Your task to perform on an android device: Go to wifi settings Image 0: 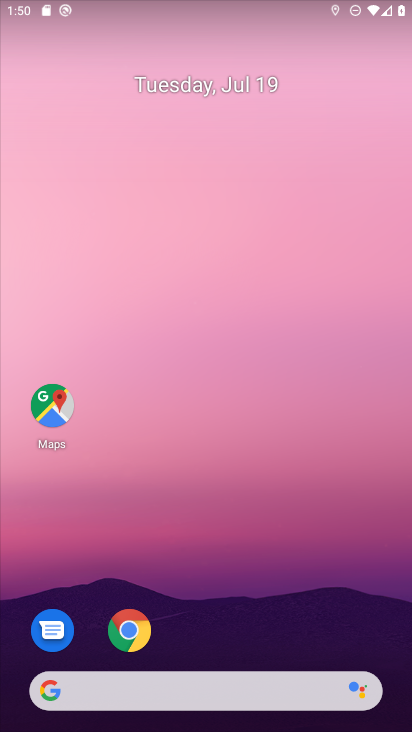
Step 0: drag from (163, 688) to (250, 94)
Your task to perform on an android device: Go to wifi settings Image 1: 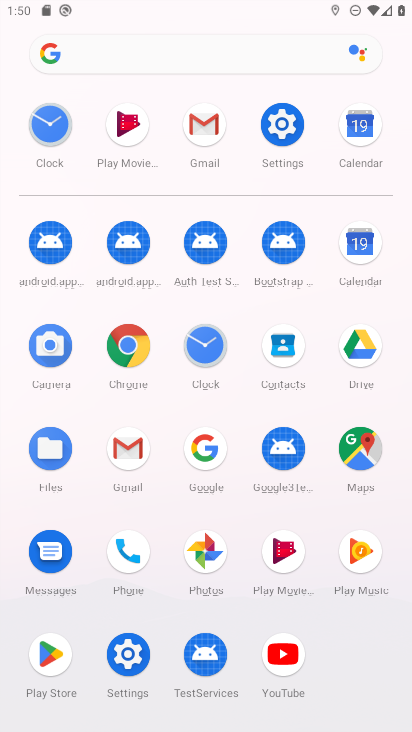
Step 1: click (285, 132)
Your task to perform on an android device: Go to wifi settings Image 2: 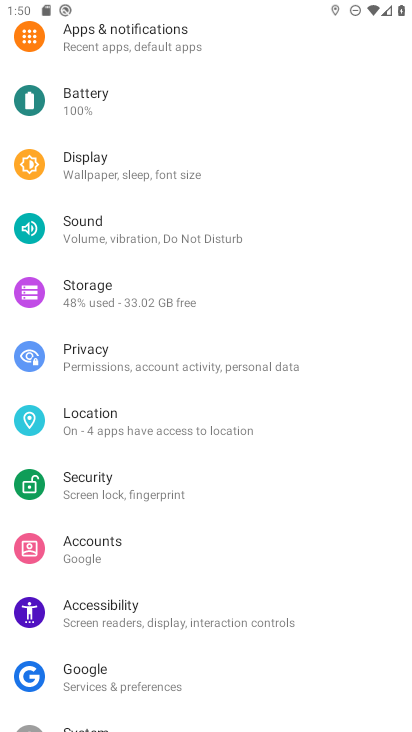
Step 2: drag from (247, 99) to (233, 504)
Your task to perform on an android device: Go to wifi settings Image 3: 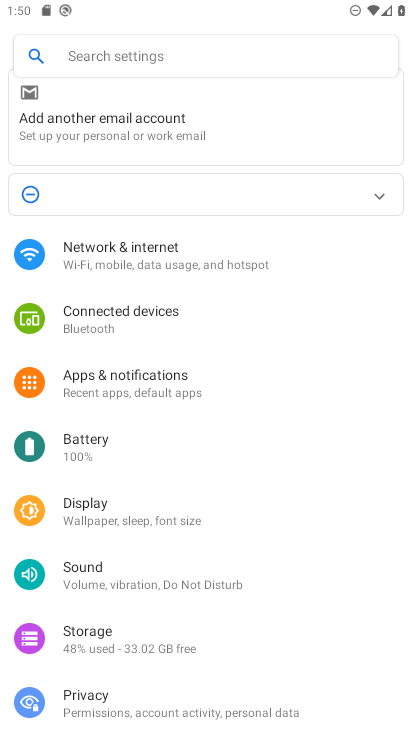
Step 3: click (169, 261)
Your task to perform on an android device: Go to wifi settings Image 4: 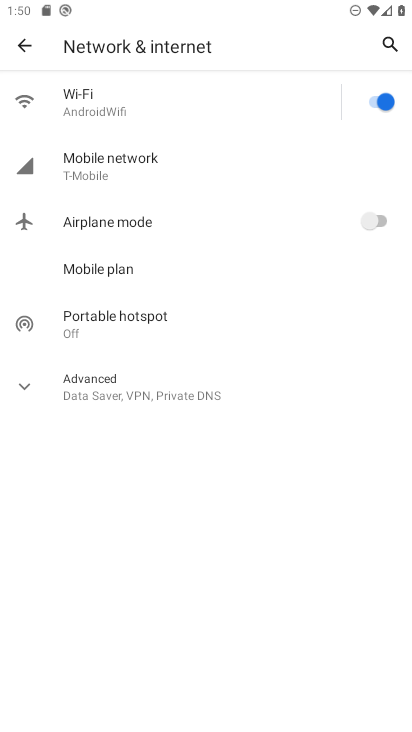
Step 4: click (91, 103)
Your task to perform on an android device: Go to wifi settings Image 5: 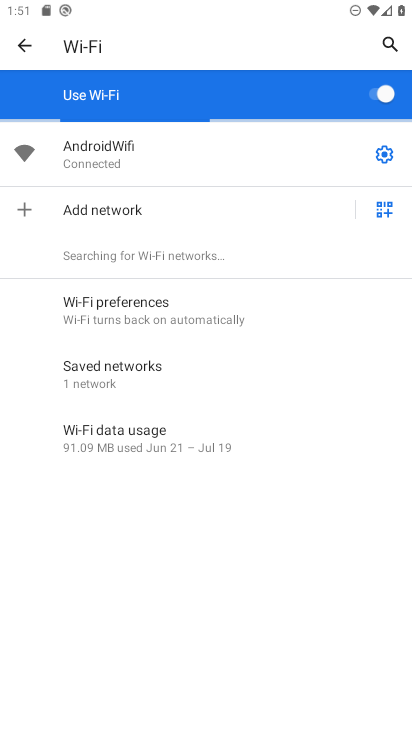
Step 5: task complete